Your task to perform on an android device: turn off translation in the chrome app Image 0: 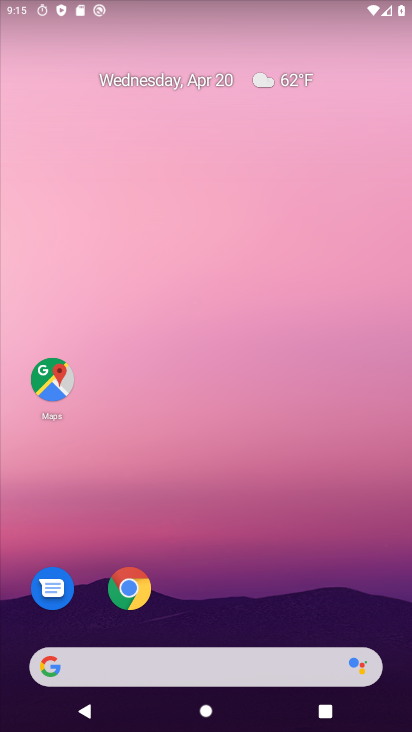
Step 0: drag from (250, 597) to (253, 49)
Your task to perform on an android device: turn off translation in the chrome app Image 1: 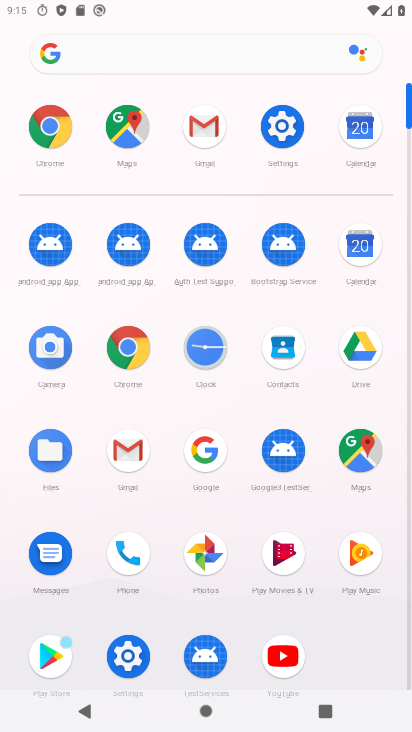
Step 1: drag from (10, 520) to (10, 351)
Your task to perform on an android device: turn off translation in the chrome app Image 2: 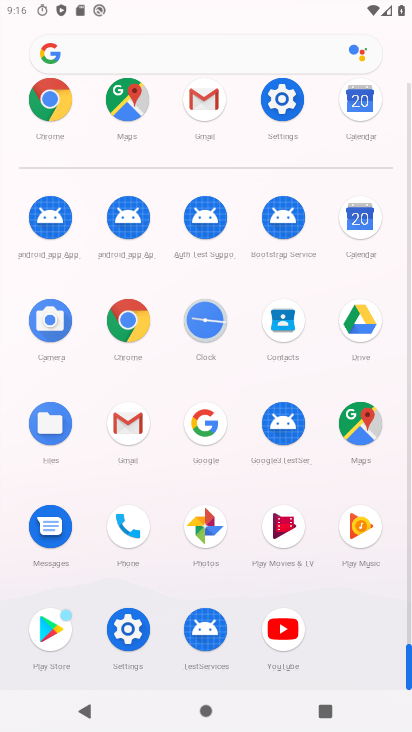
Step 2: drag from (4, 527) to (4, 343)
Your task to perform on an android device: turn off translation in the chrome app Image 3: 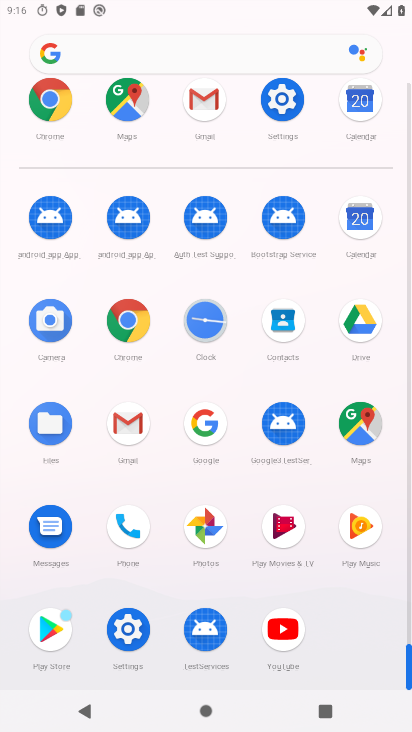
Step 3: click (126, 318)
Your task to perform on an android device: turn off translation in the chrome app Image 4: 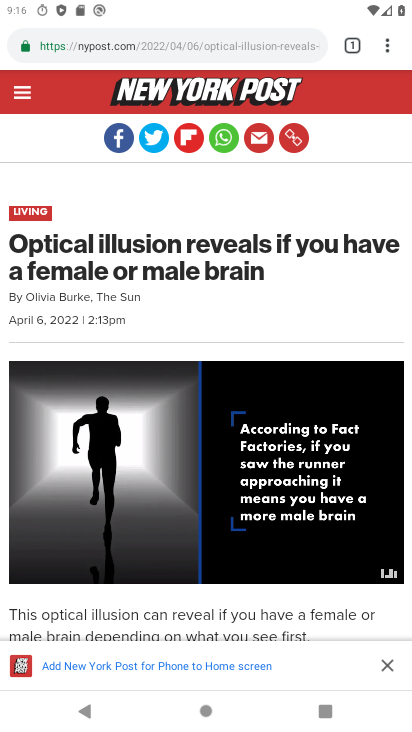
Step 4: drag from (379, 49) to (224, 562)
Your task to perform on an android device: turn off translation in the chrome app Image 5: 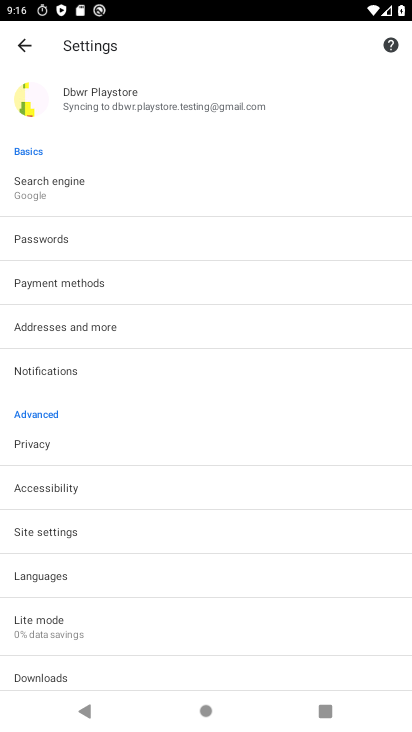
Step 5: click (107, 577)
Your task to perform on an android device: turn off translation in the chrome app Image 6: 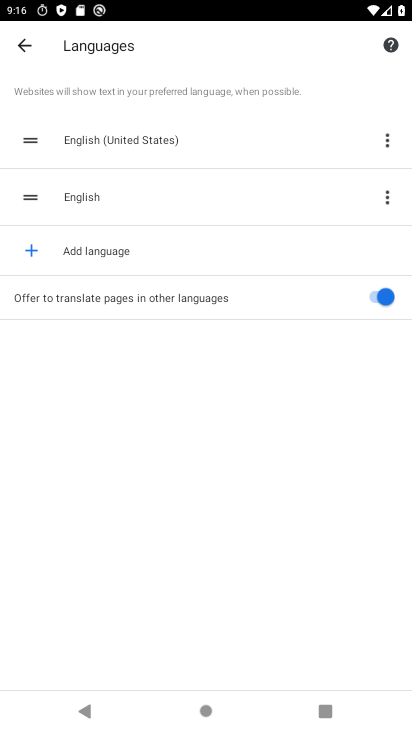
Step 6: click (379, 303)
Your task to perform on an android device: turn off translation in the chrome app Image 7: 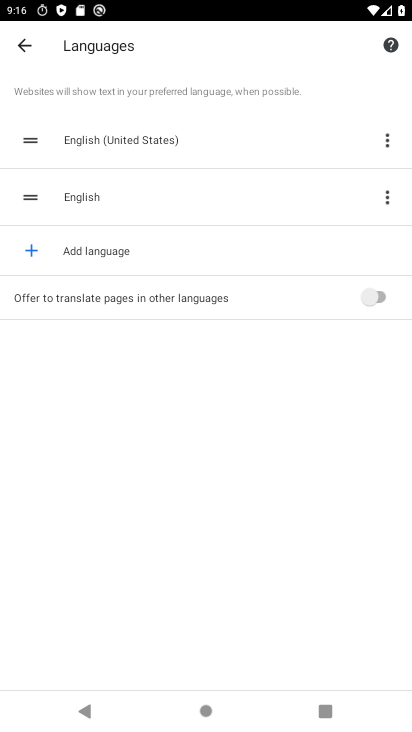
Step 7: task complete